Your task to perform on an android device: Open the Play Movies app and select the watchlist tab. Image 0: 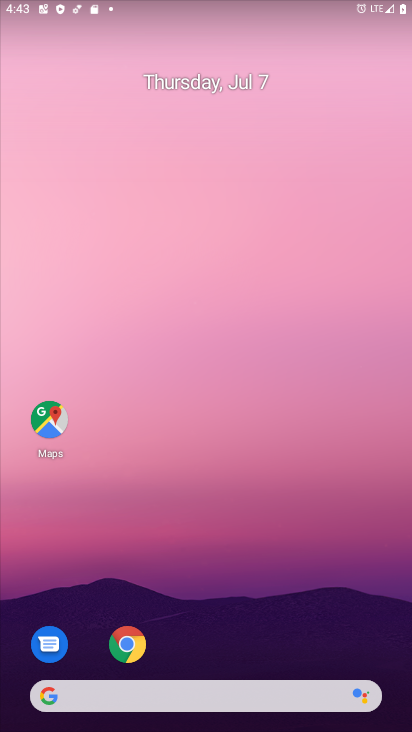
Step 0: drag from (209, 625) to (207, 3)
Your task to perform on an android device: Open the Play Movies app and select the watchlist tab. Image 1: 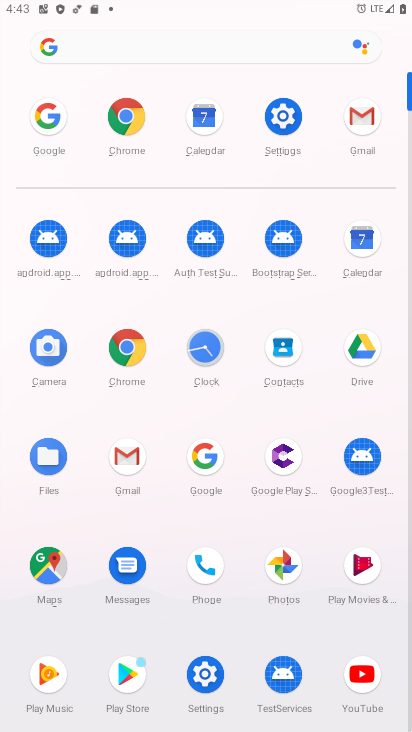
Step 1: click (363, 566)
Your task to perform on an android device: Open the Play Movies app and select the watchlist tab. Image 2: 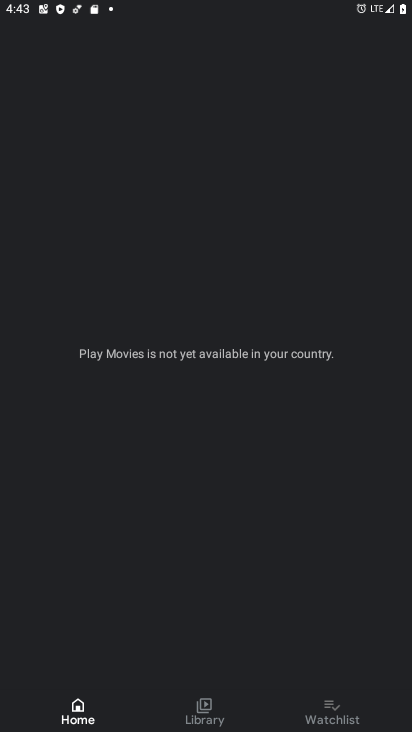
Step 2: click (332, 707)
Your task to perform on an android device: Open the Play Movies app and select the watchlist tab. Image 3: 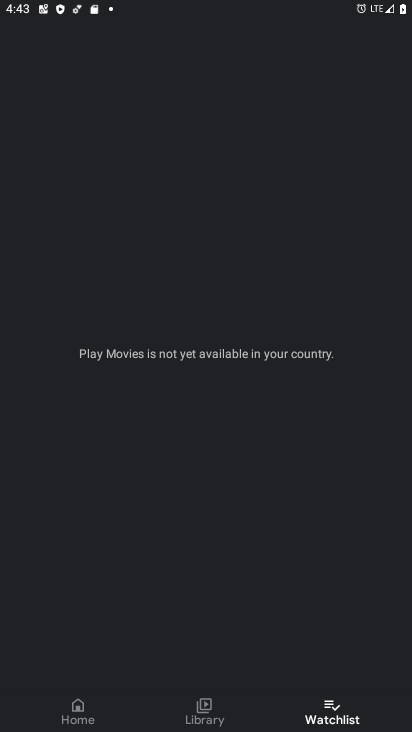
Step 3: task complete